Your task to perform on an android device: install app "Google Translate" Image 0: 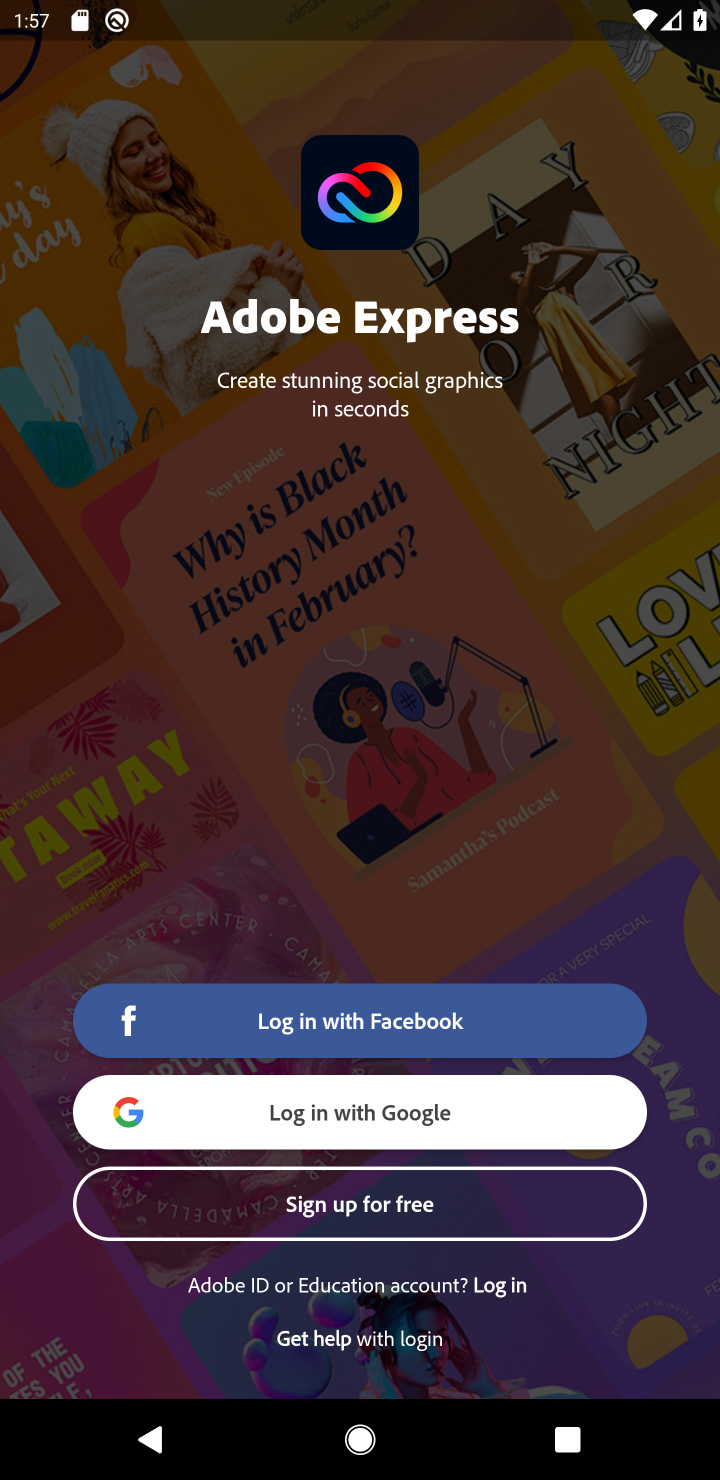
Step 0: press home button
Your task to perform on an android device: install app "Google Translate" Image 1: 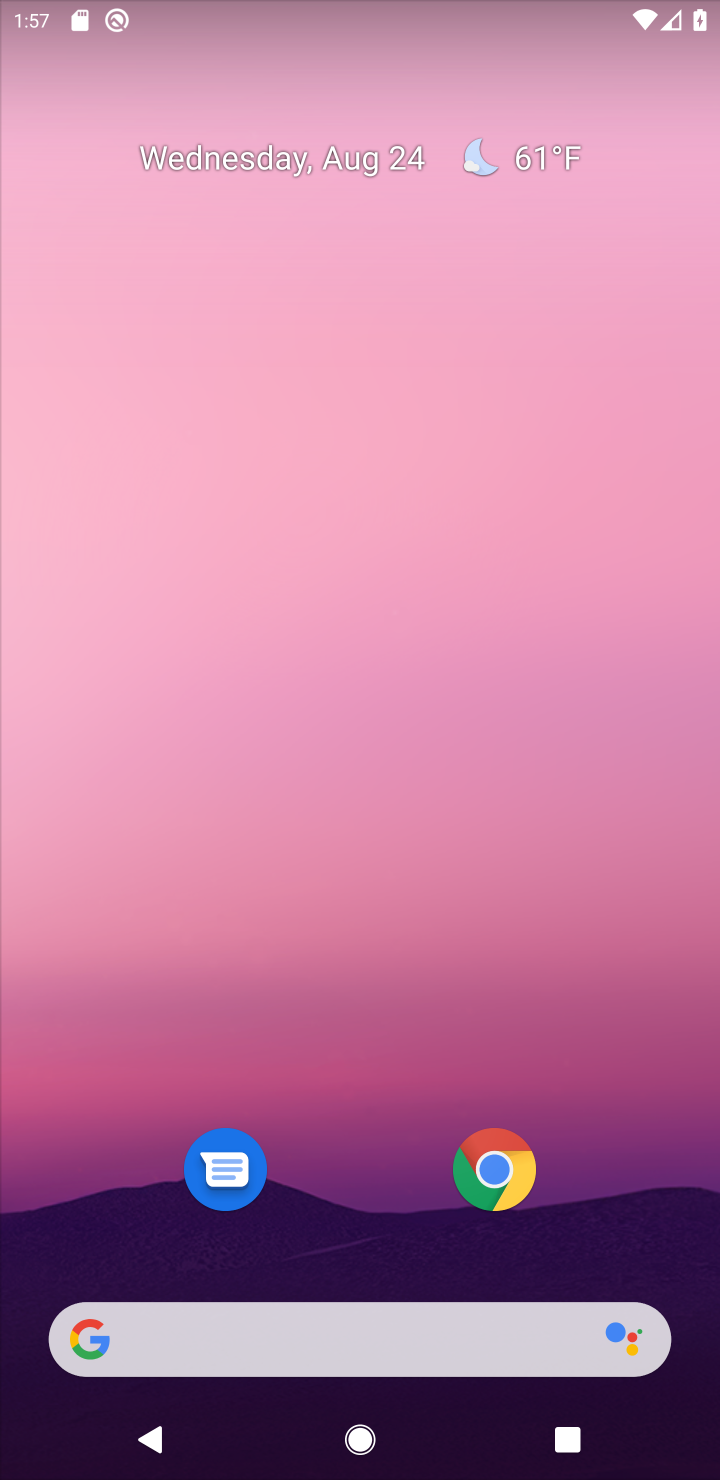
Step 1: drag from (315, 1248) to (230, 242)
Your task to perform on an android device: install app "Google Translate" Image 2: 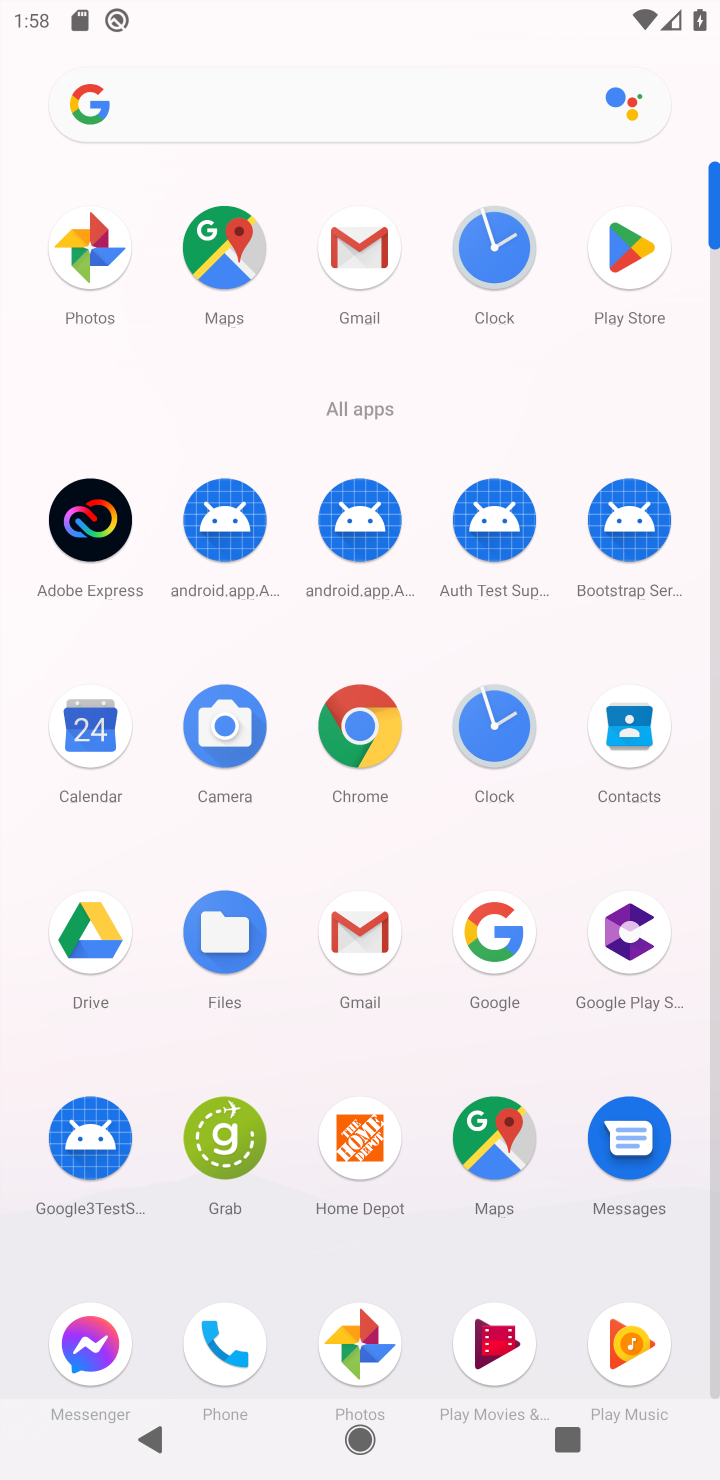
Step 2: click (643, 260)
Your task to perform on an android device: install app "Google Translate" Image 3: 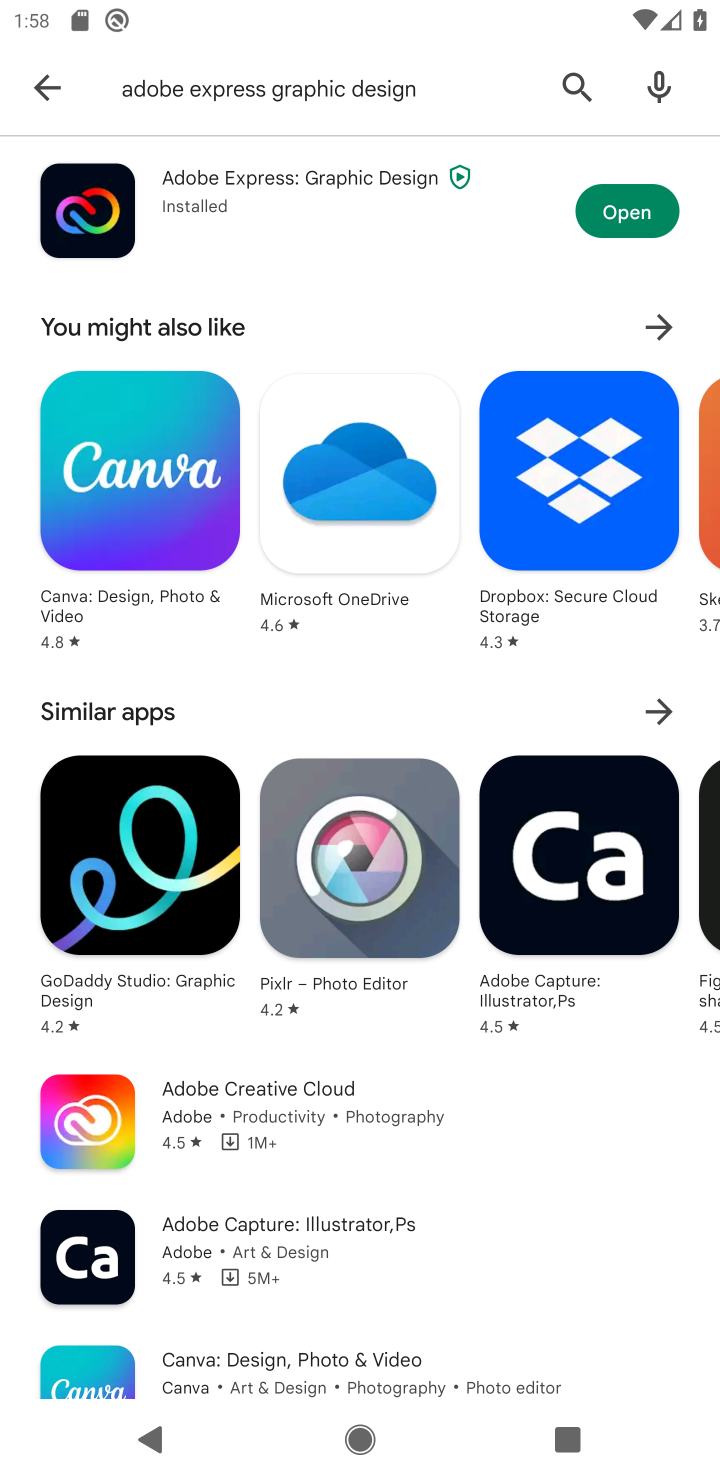
Step 3: click (43, 82)
Your task to perform on an android device: install app "Google Translate" Image 4: 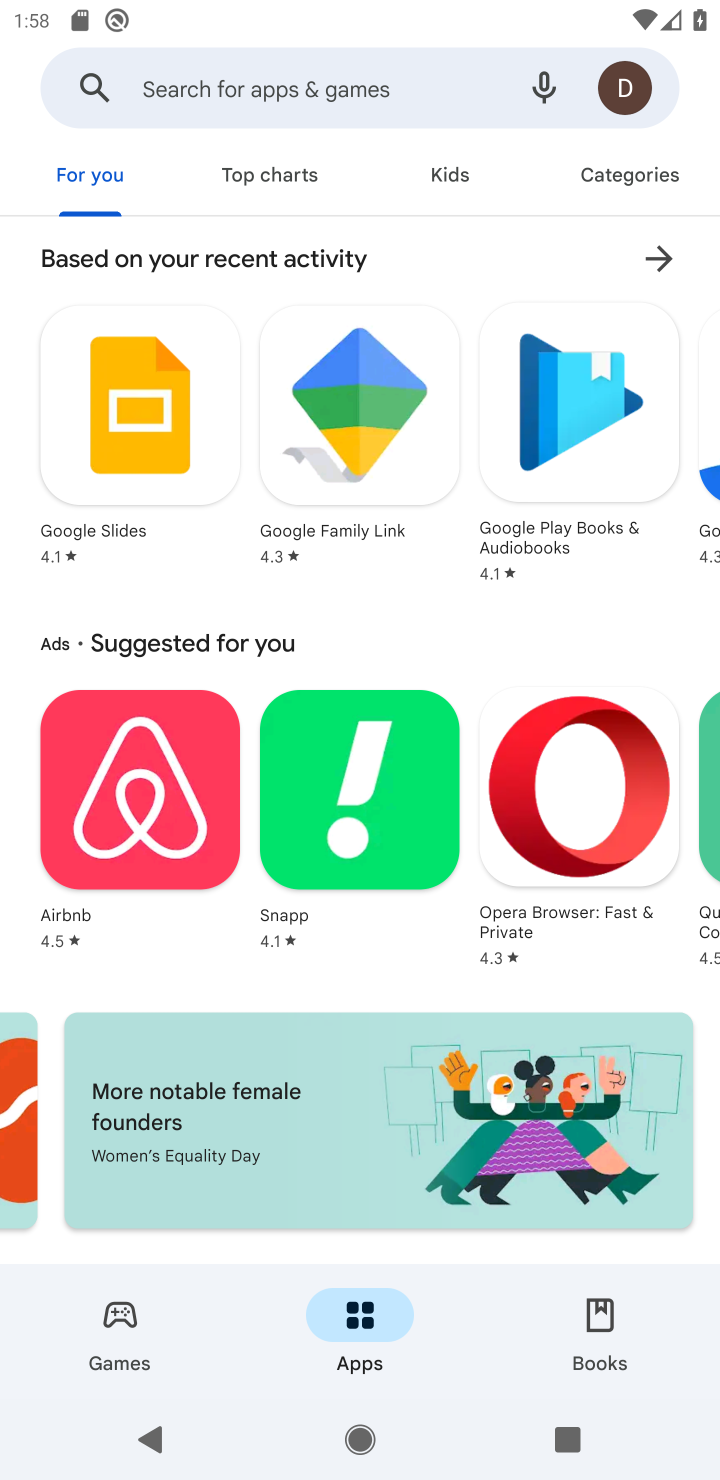
Step 4: click (136, 93)
Your task to perform on an android device: install app "Google Translate" Image 5: 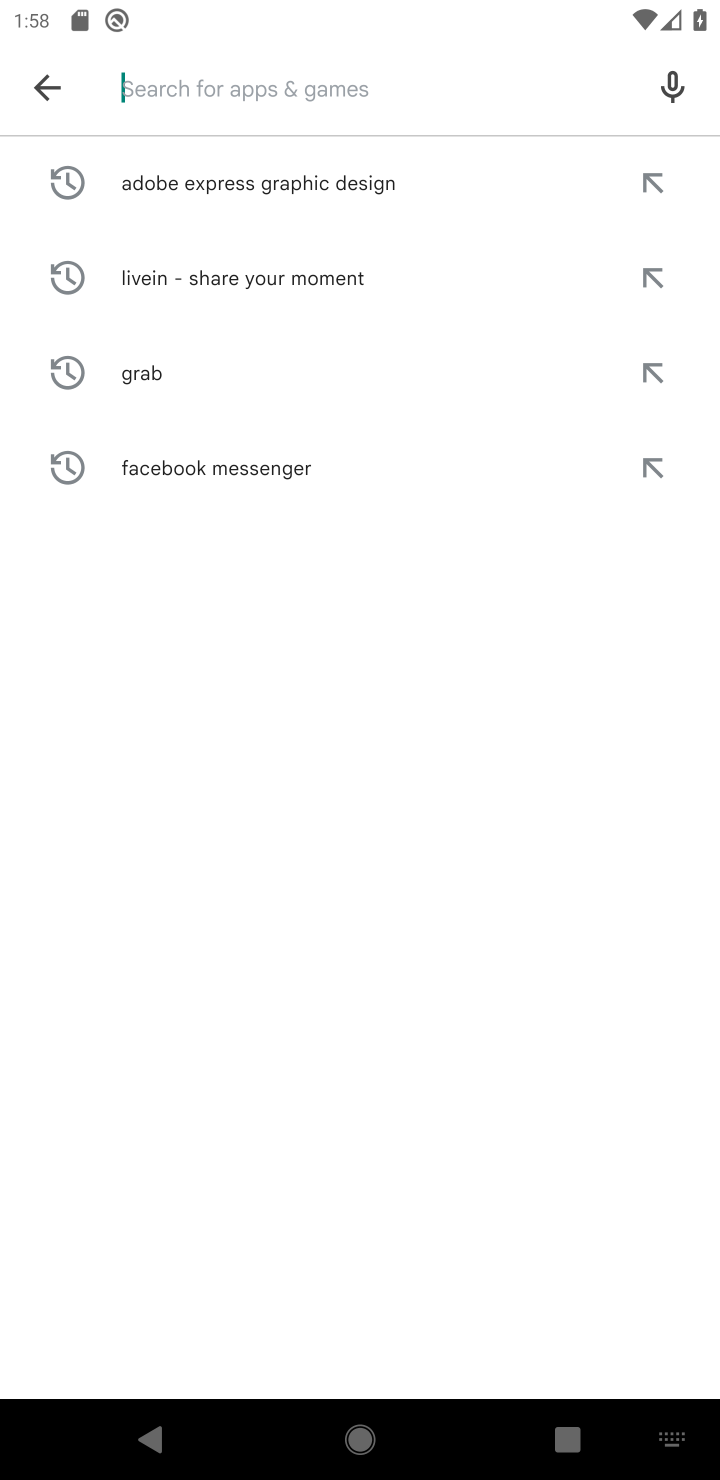
Step 5: type "Google Translate"
Your task to perform on an android device: install app "Google Translate" Image 6: 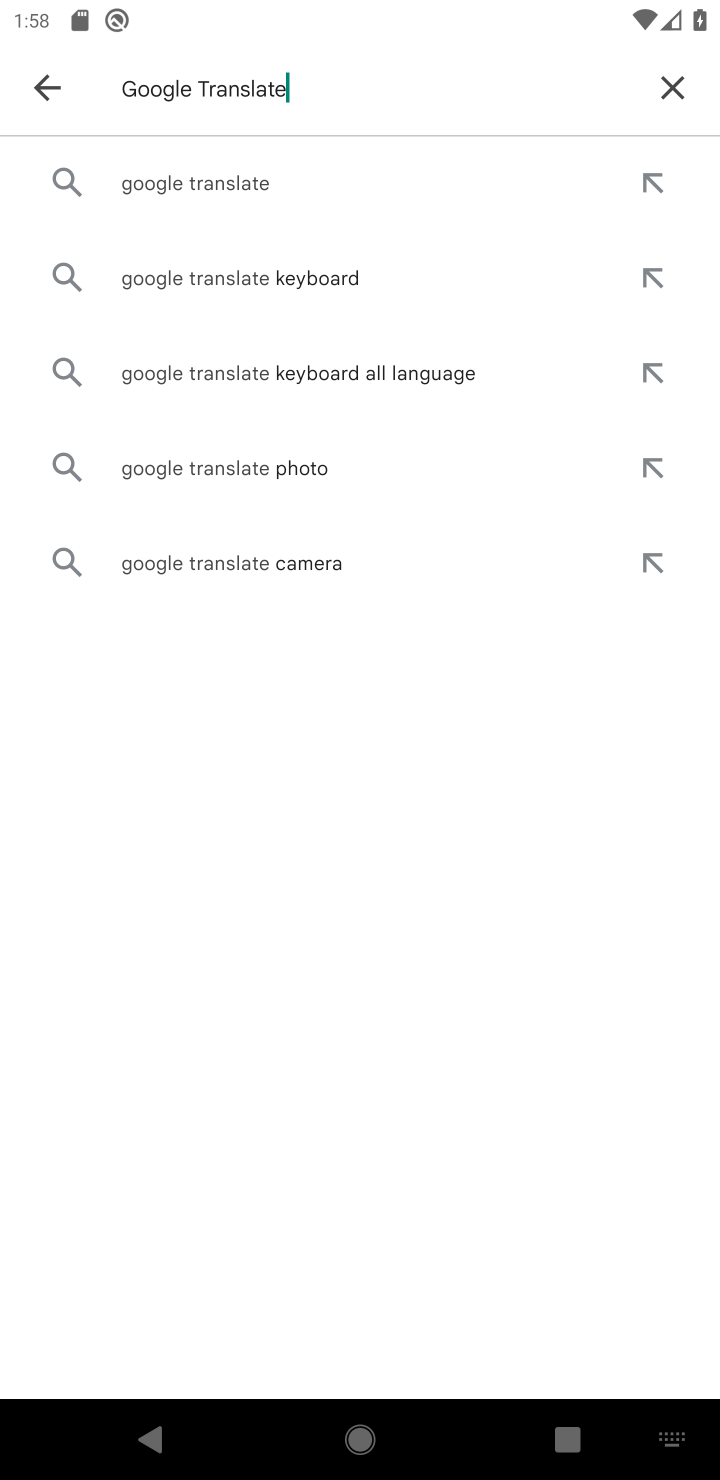
Step 6: click (168, 202)
Your task to perform on an android device: install app "Google Translate" Image 7: 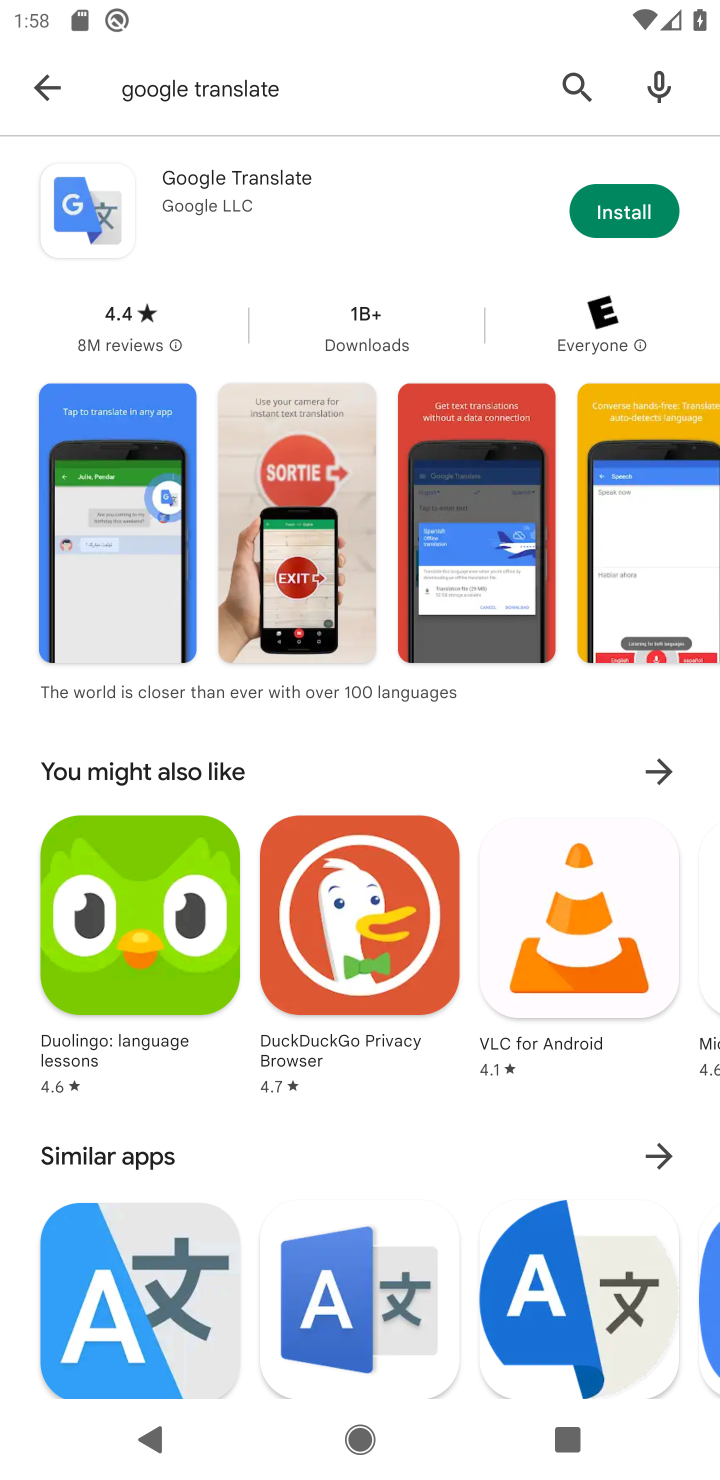
Step 7: click (614, 201)
Your task to perform on an android device: install app "Google Translate" Image 8: 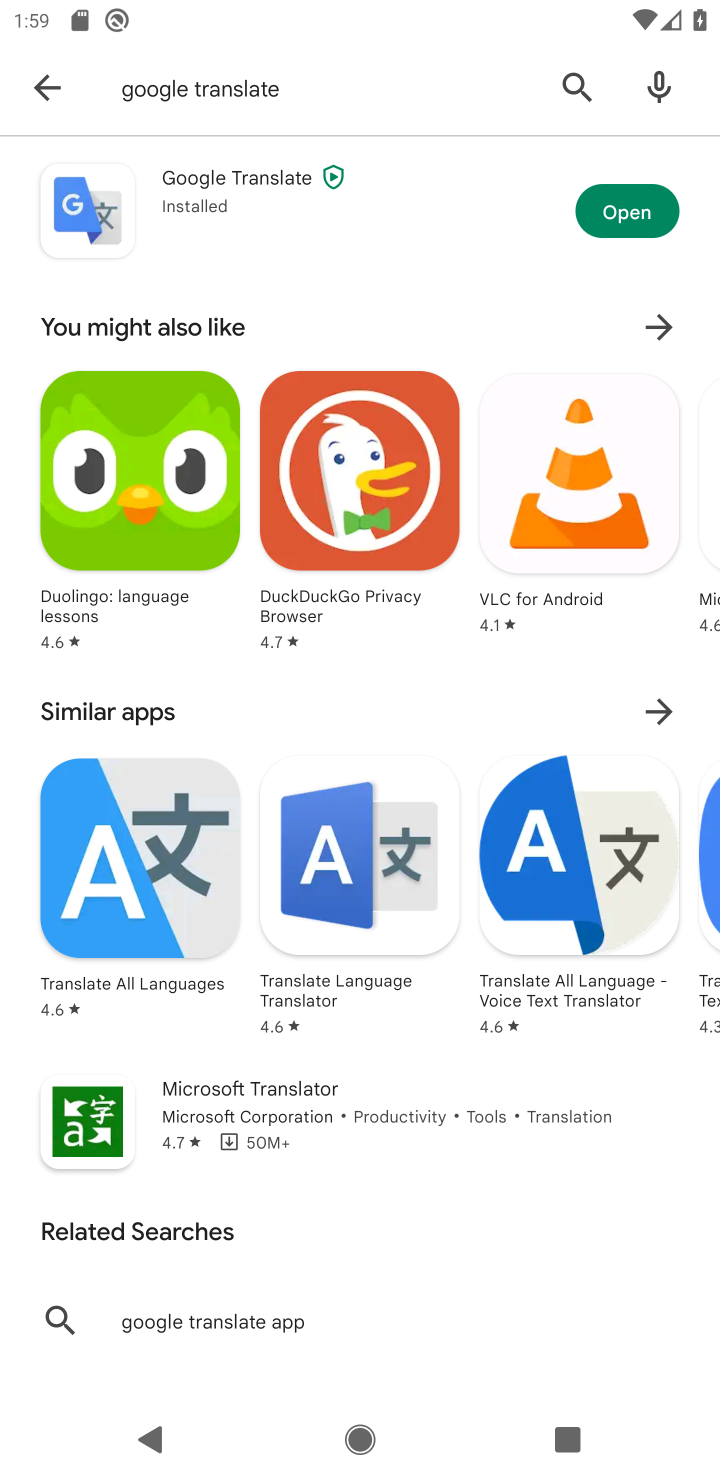
Step 8: task complete